Your task to perform on an android device: Go to calendar. Show me events next week Image 0: 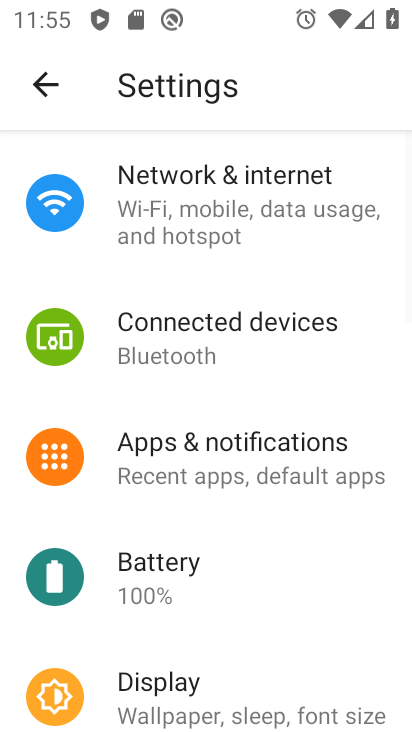
Step 0: press home button
Your task to perform on an android device: Go to calendar. Show me events next week Image 1: 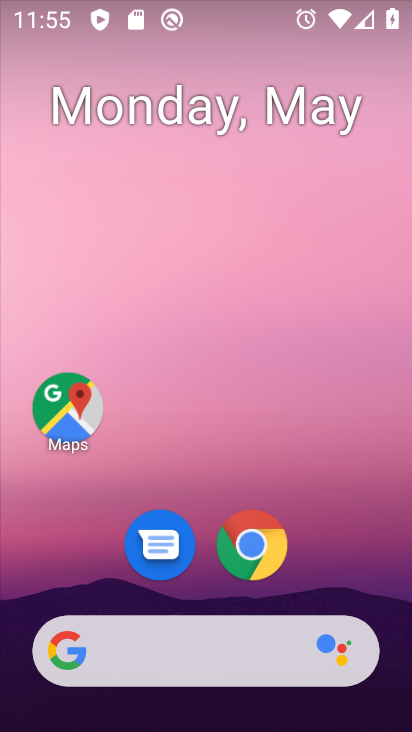
Step 1: drag from (319, 456) to (276, 170)
Your task to perform on an android device: Go to calendar. Show me events next week Image 2: 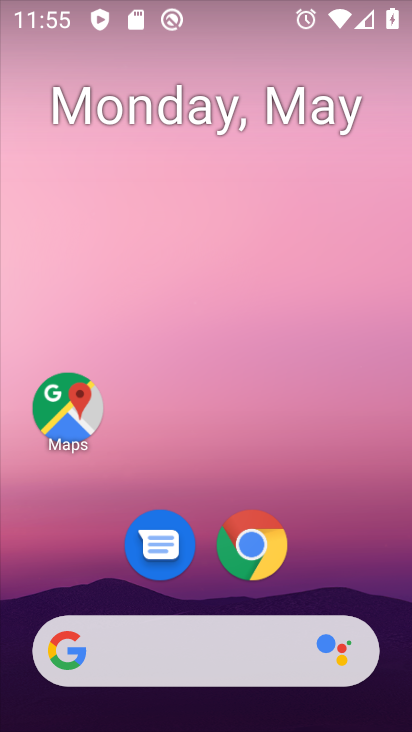
Step 2: drag from (318, 534) to (273, 50)
Your task to perform on an android device: Go to calendar. Show me events next week Image 3: 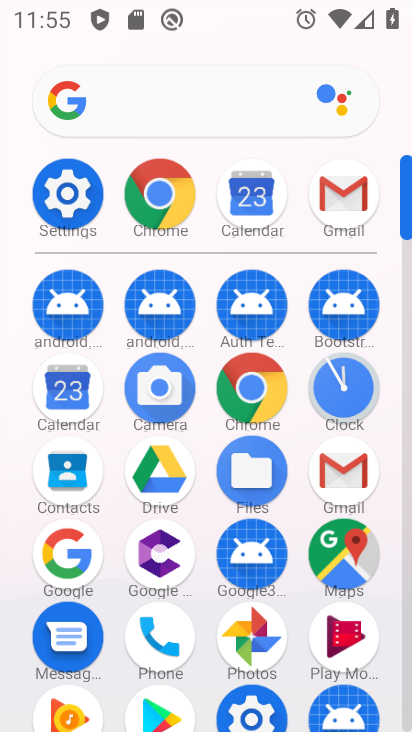
Step 3: click (251, 179)
Your task to perform on an android device: Go to calendar. Show me events next week Image 4: 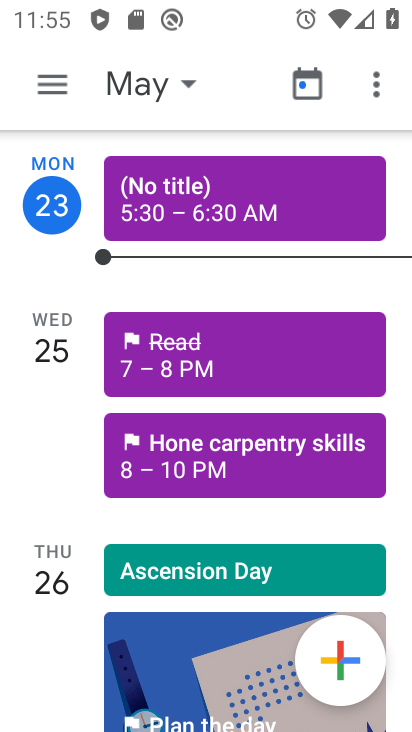
Step 4: drag from (33, 421) to (43, 106)
Your task to perform on an android device: Go to calendar. Show me events next week Image 5: 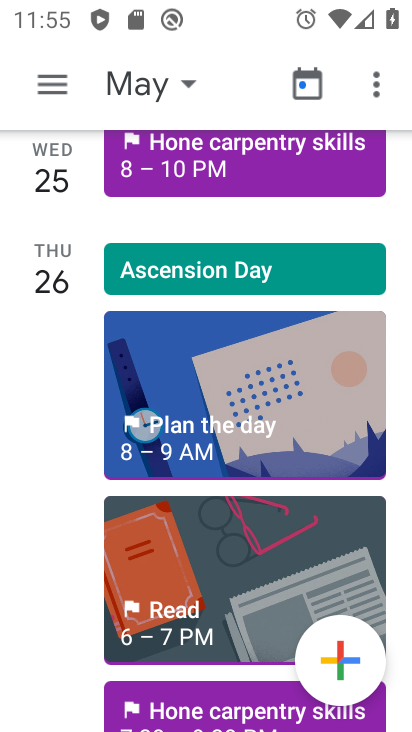
Step 5: drag from (34, 512) to (97, 121)
Your task to perform on an android device: Go to calendar. Show me events next week Image 6: 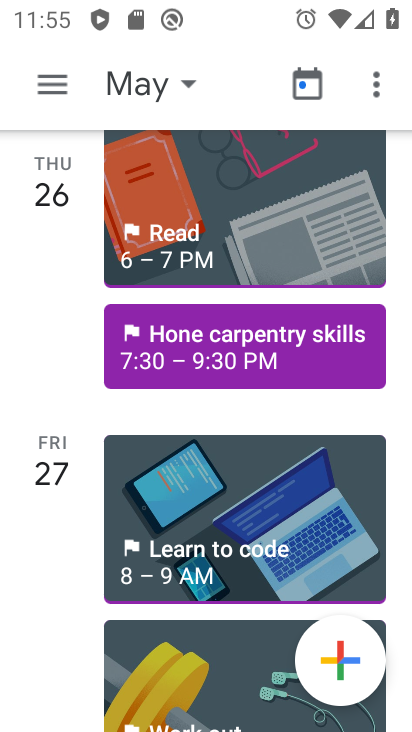
Step 6: drag from (73, 591) to (91, 406)
Your task to perform on an android device: Go to calendar. Show me events next week Image 7: 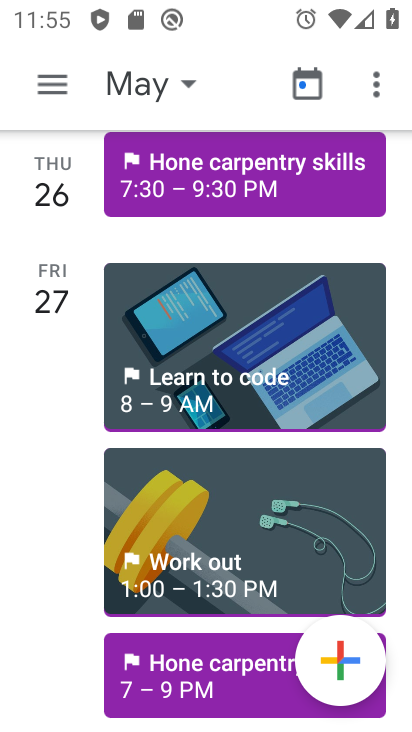
Step 7: drag from (94, 622) to (78, 288)
Your task to perform on an android device: Go to calendar. Show me events next week Image 8: 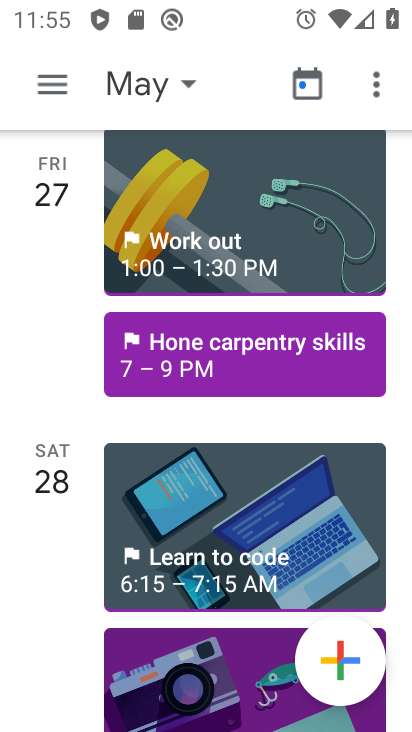
Step 8: drag from (0, 625) to (33, 196)
Your task to perform on an android device: Go to calendar. Show me events next week Image 9: 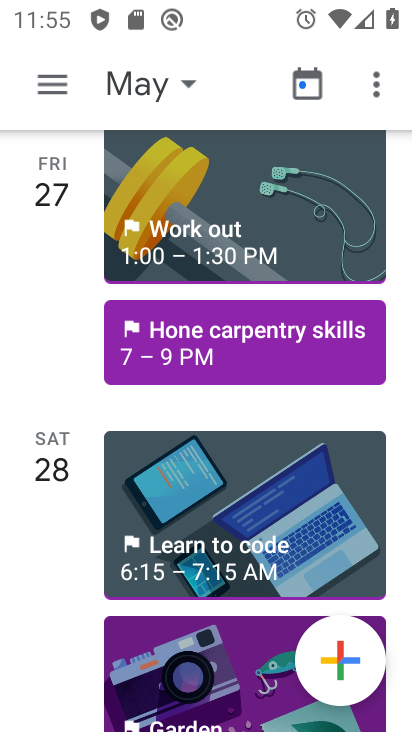
Step 9: drag from (80, 535) to (57, 241)
Your task to perform on an android device: Go to calendar. Show me events next week Image 10: 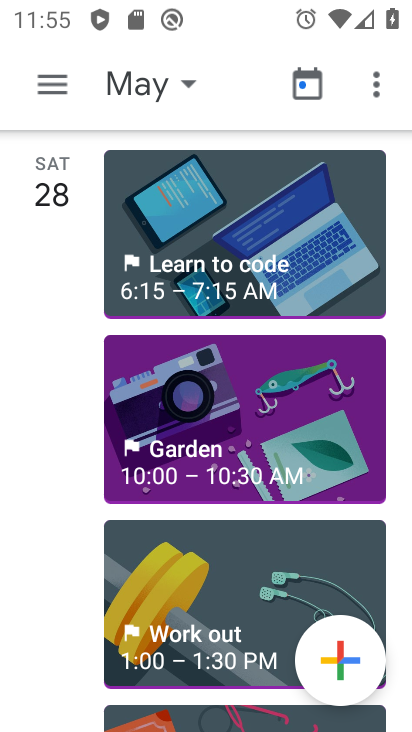
Step 10: drag from (163, 623) to (154, 268)
Your task to perform on an android device: Go to calendar. Show me events next week Image 11: 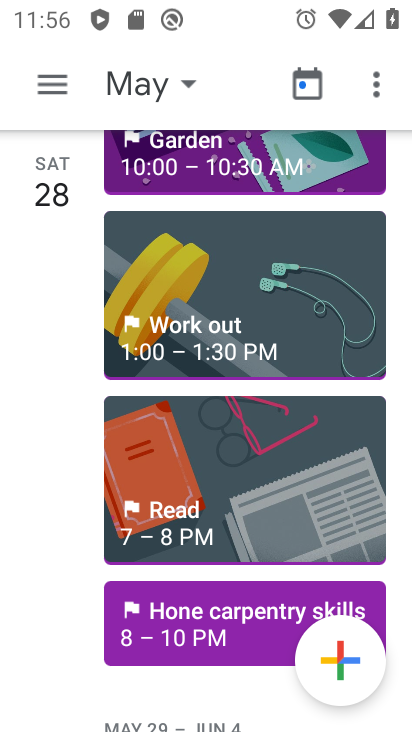
Step 11: click (51, 80)
Your task to perform on an android device: Go to calendar. Show me events next week Image 12: 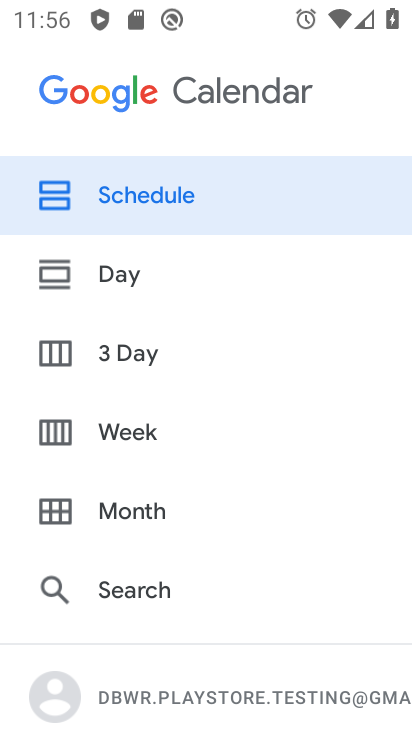
Step 12: click (127, 508)
Your task to perform on an android device: Go to calendar. Show me events next week Image 13: 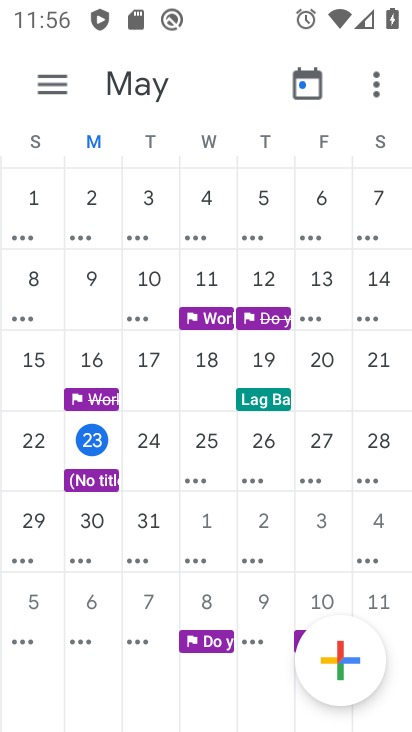
Step 13: task complete